Your task to perform on an android device: open a bookmark in the chrome app Image 0: 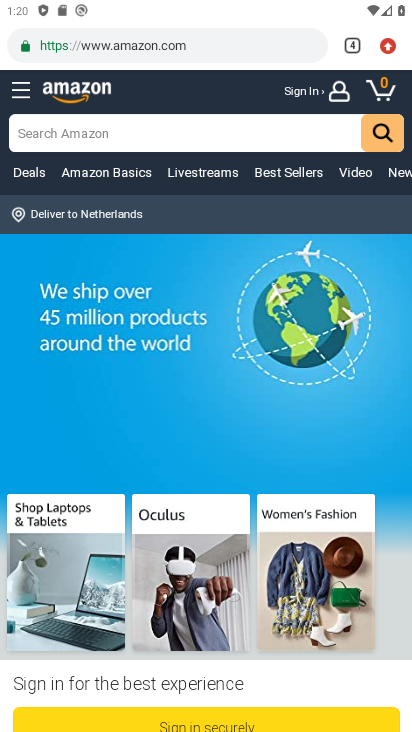
Step 0: press home button
Your task to perform on an android device: open a bookmark in the chrome app Image 1: 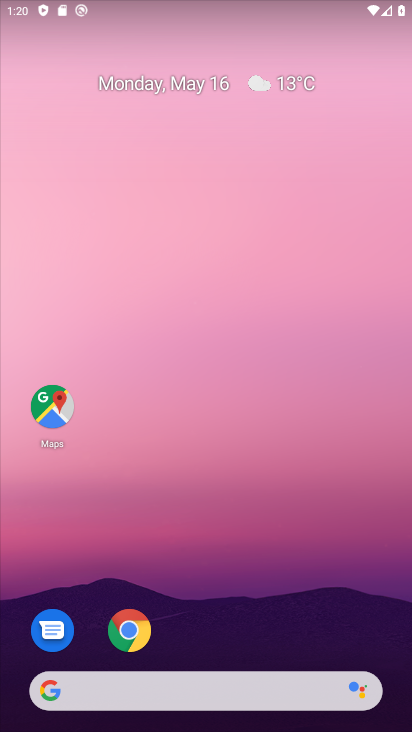
Step 1: click (140, 641)
Your task to perform on an android device: open a bookmark in the chrome app Image 2: 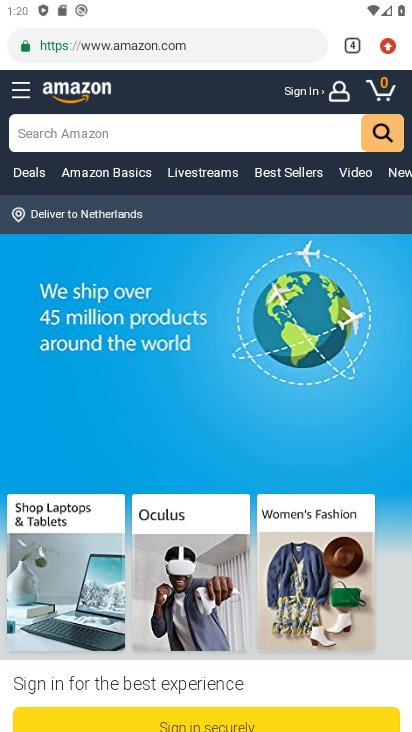
Step 2: click (349, 40)
Your task to perform on an android device: open a bookmark in the chrome app Image 3: 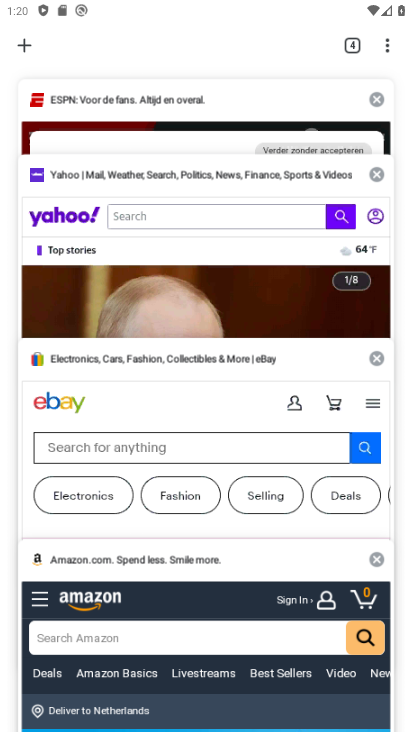
Step 3: click (387, 39)
Your task to perform on an android device: open a bookmark in the chrome app Image 4: 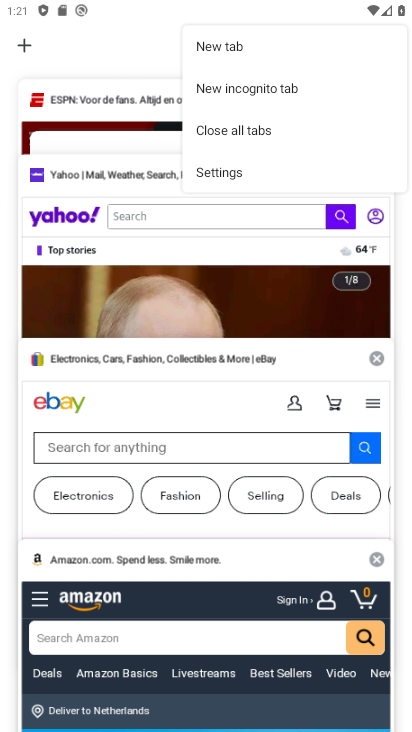
Step 4: click (23, 46)
Your task to perform on an android device: open a bookmark in the chrome app Image 5: 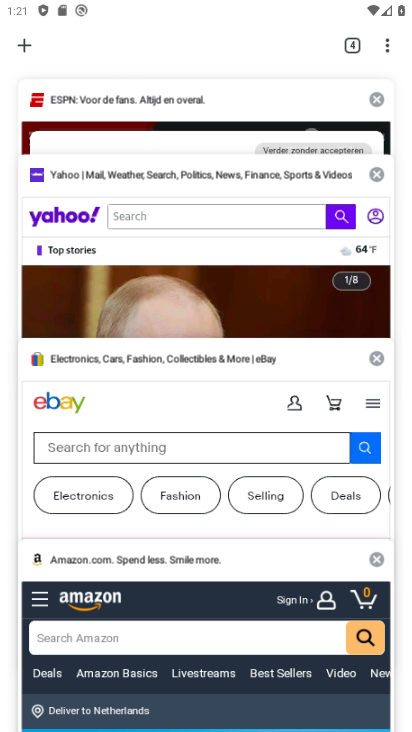
Step 5: click (23, 46)
Your task to perform on an android device: open a bookmark in the chrome app Image 6: 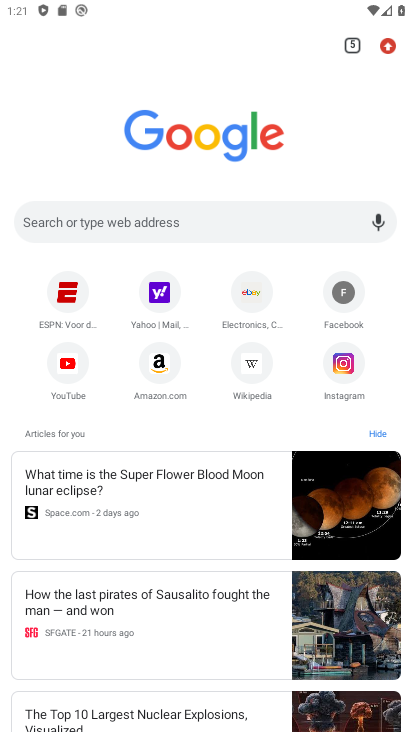
Step 6: click (333, 216)
Your task to perform on an android device: open a bookmark in the chrome app Image 7: 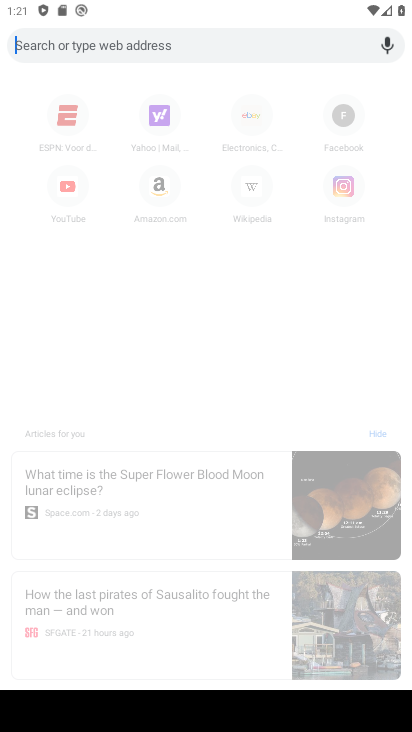
Step 7: press back button
Your task to perform on an android device: open a bookmark in the chrome app Image 8: 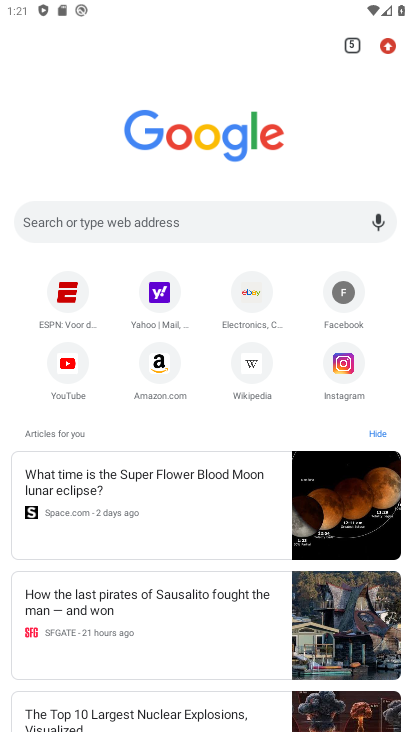
Step 8: press home button
Your task to perform on an android device: open a bookmark in the chrome app Image 9: 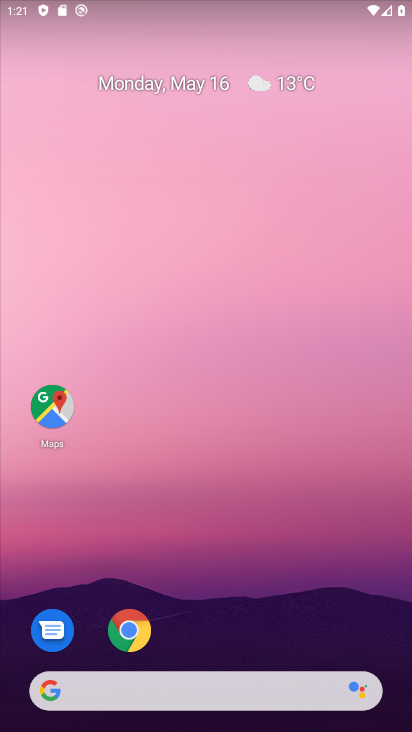
Step 9: click (128, 627)
Your task to perform on an android device: open a bookmark in the chrome app Image 10: 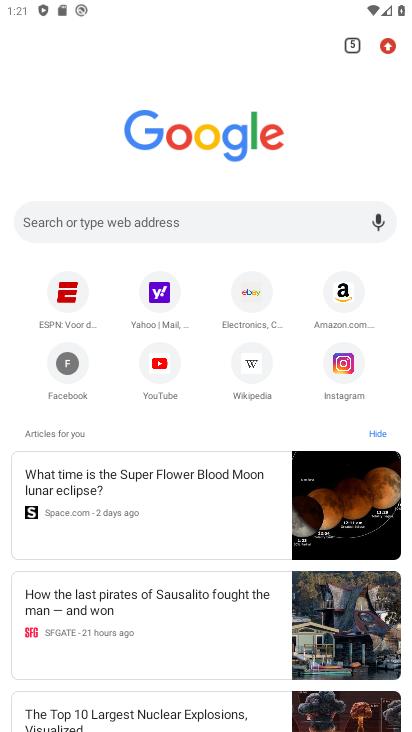
Step 10: click (307, 226)
Your task to perform on an android device: open a bookmark in the chrome app Image 11: 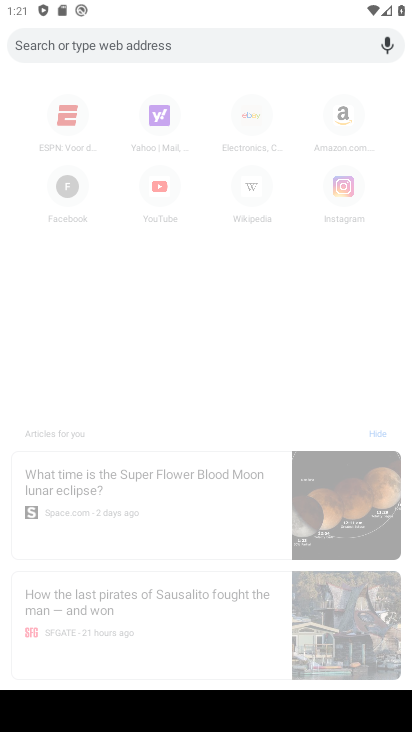
Step 11: press back button
Your task to perform on an android device: open a bookmark in the chrome app Image 12: 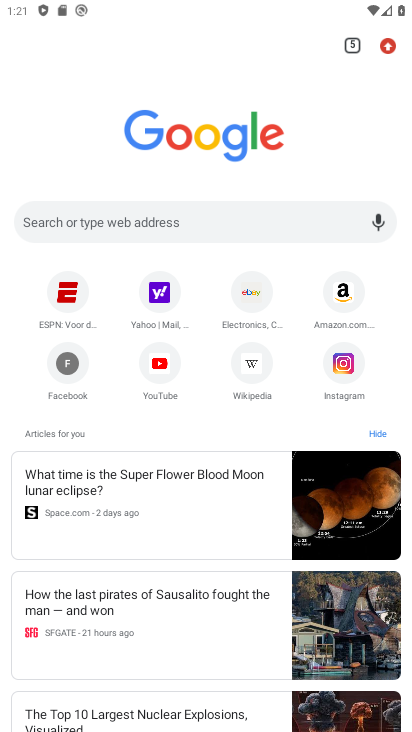
Step 12: click (382, 48)
Your task to perform on an android device: open a bookmark in the chrome app Image 13: 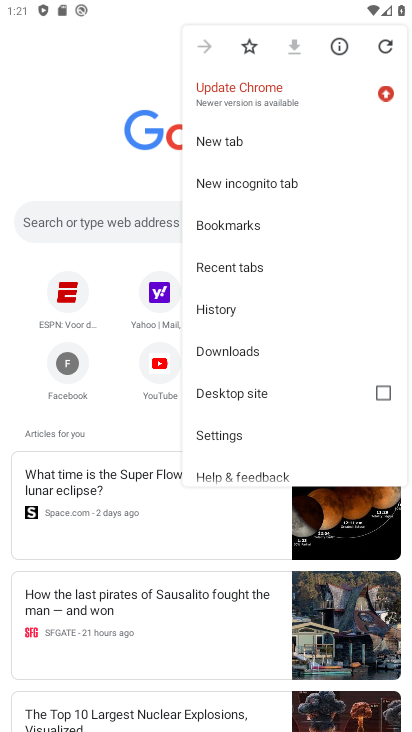
Step 13: click (290, 228)
Your task to perform on an android device: open a bookmark in the chrome app Image 14: 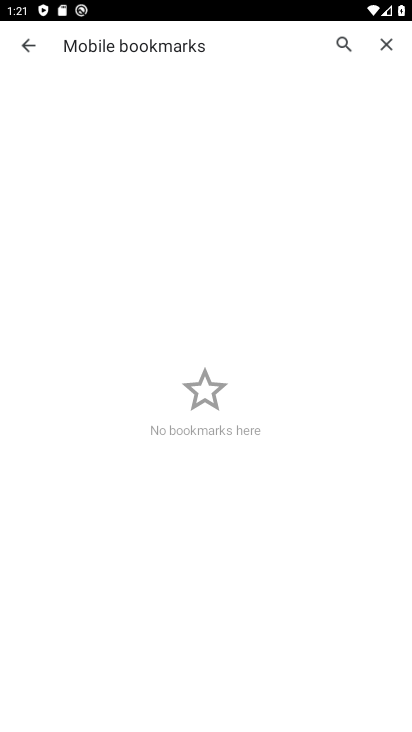
Step 14: task complete